Your task to perform on an android device: delete location history Image 0: 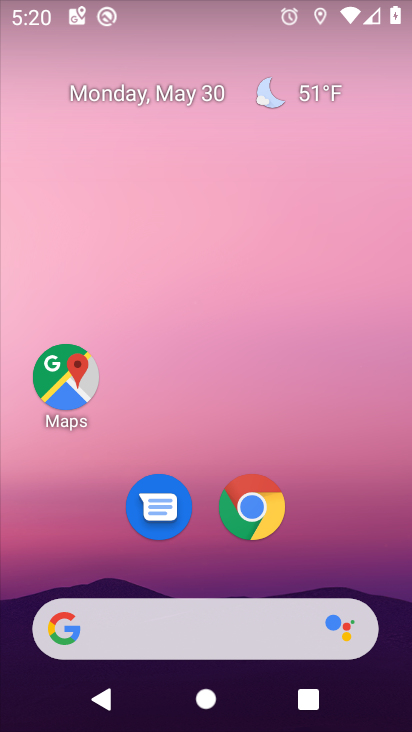
Step 0: press home button
Your task to perform on an android device: delete location history Image 1: 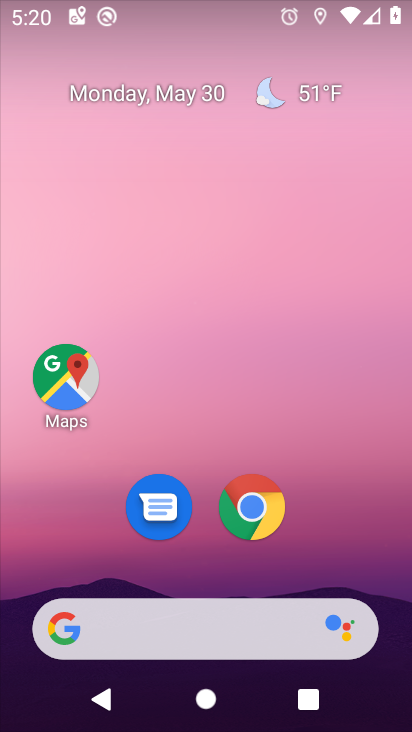
Step 1: drag from (404, 531) to (241, 212)
Your task to perform on an android device: delete location history Image 2: 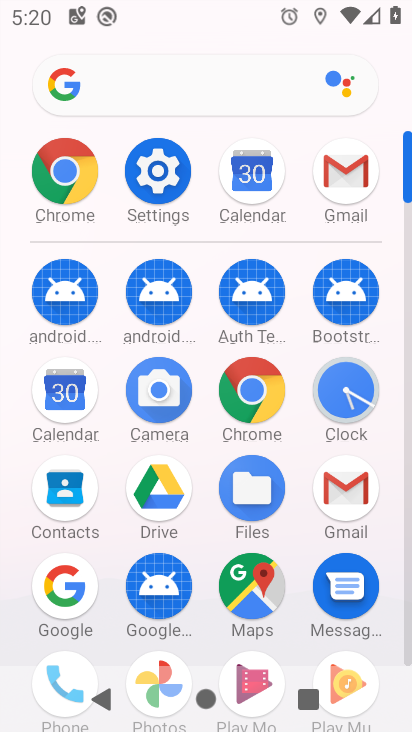
Step 2: click (233, 546)
Your task to perform on an android device: delete location history Image 3: 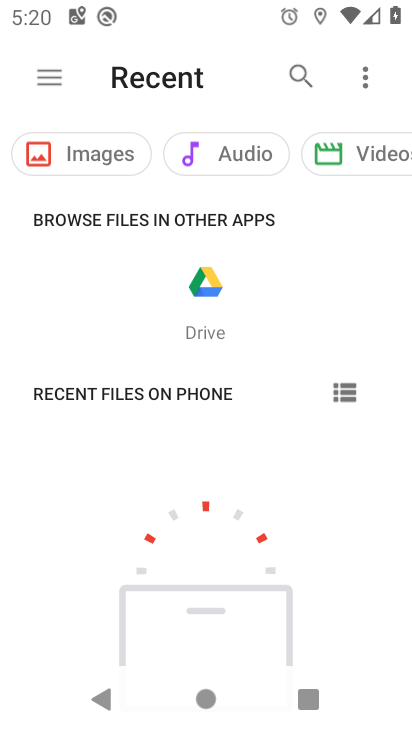
Step 3: press home button
Your task to perform on an android device: delete location history Image 4: 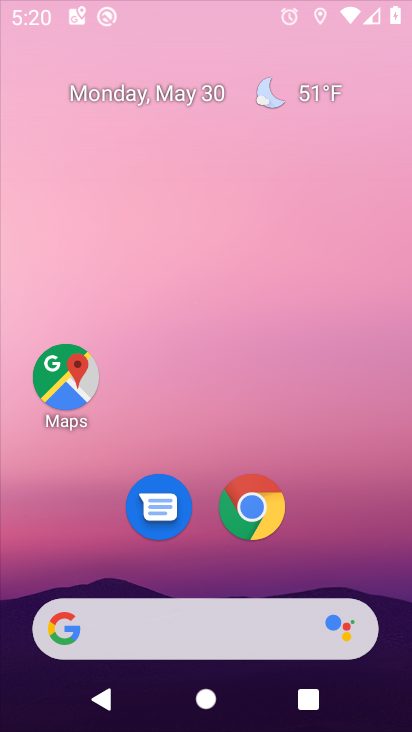
Step 4: drag from (325, 577) to (260, 317)
Your task to perform on an android device: delete location history Image 5: 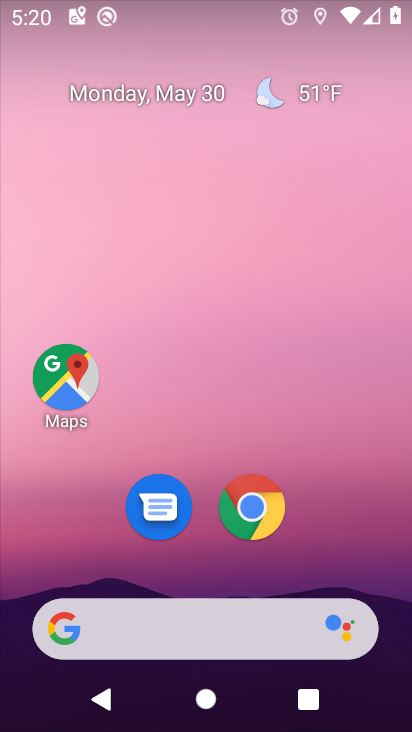
Step 5: drag from (339, 585) to (324, 88)
Your task to perform on an android device: delete location history Image 6: 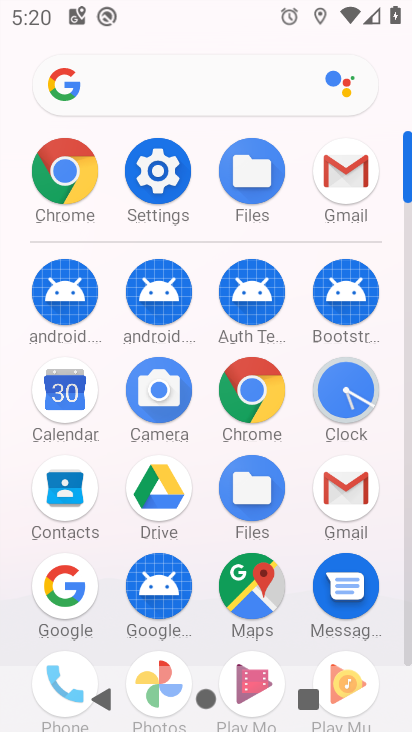
Step 6: click (259, 590)
Your task to perform on an android device: delete location history Image 7: 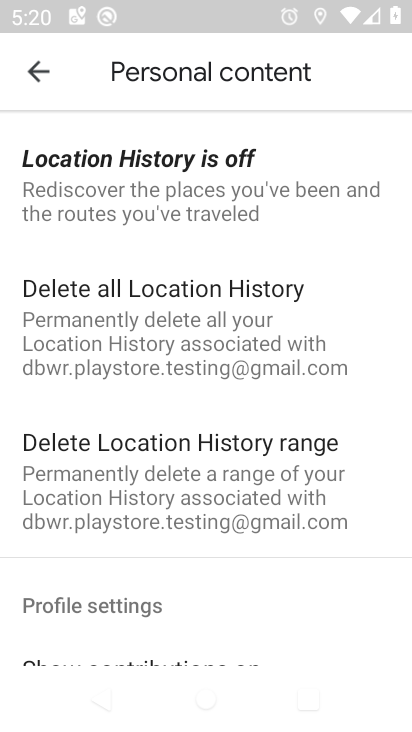
Step 7: click (129, 324)
Your task to perform on an android device: delete location history Image 8: 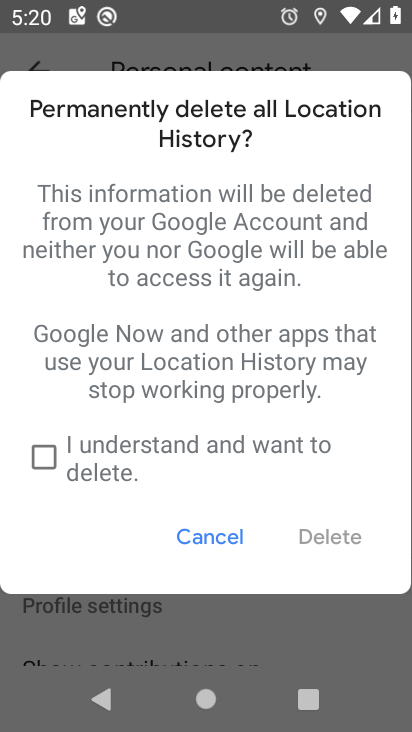
Step 8: click (110, 450)
Your task to perform on an android device: delete location history Image 9: 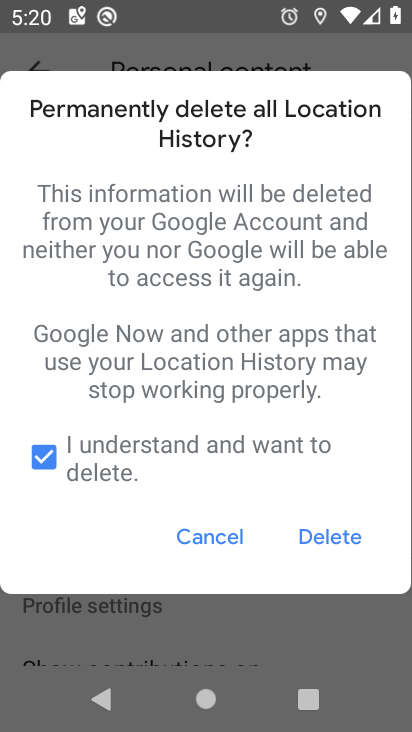
Step 9: click (339, 544)
Your task to perform on an android device: delete location history Image 10: 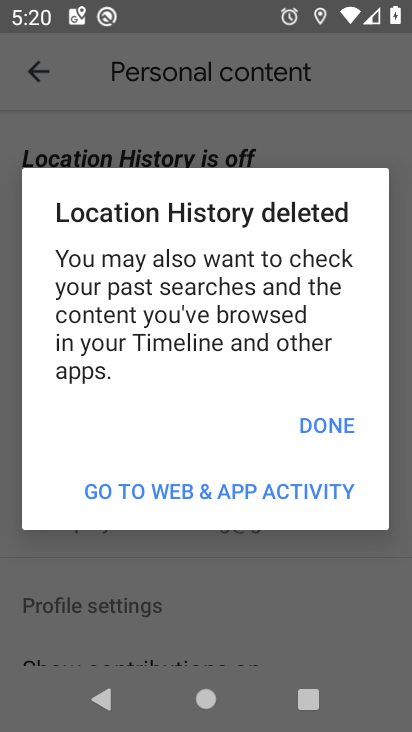
Step 10: click (299, 416)
Your task to perform on an android device: delete location history Image 11: 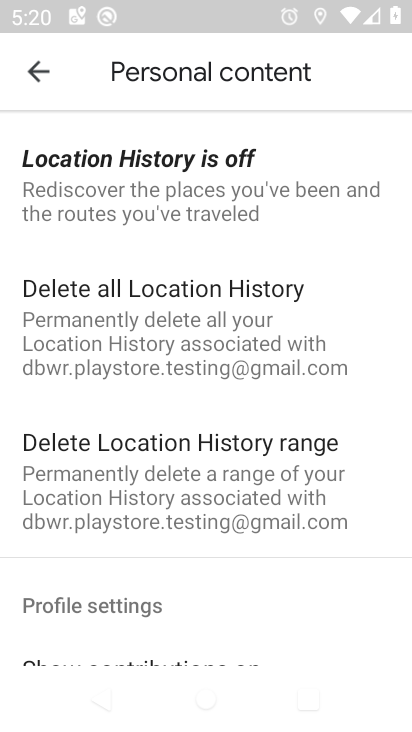
Step 11: task complete